Your task to perform on an android device: Open Youtube and go to "Your channel" Image 0: 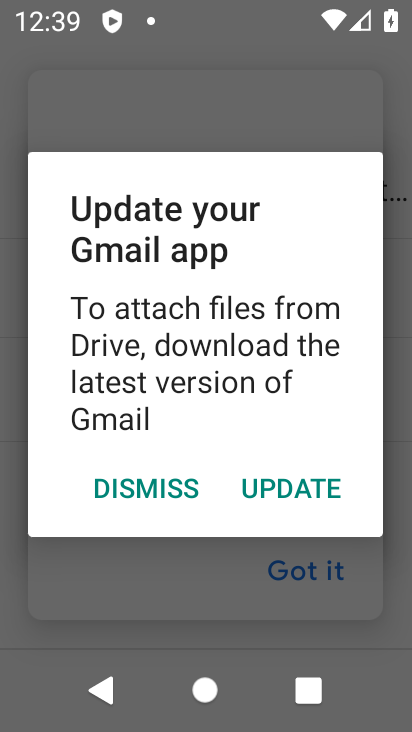
Step 0: press home button
Your task to perform on an android device: Open Youtube and go to "Your channel" Image 1: 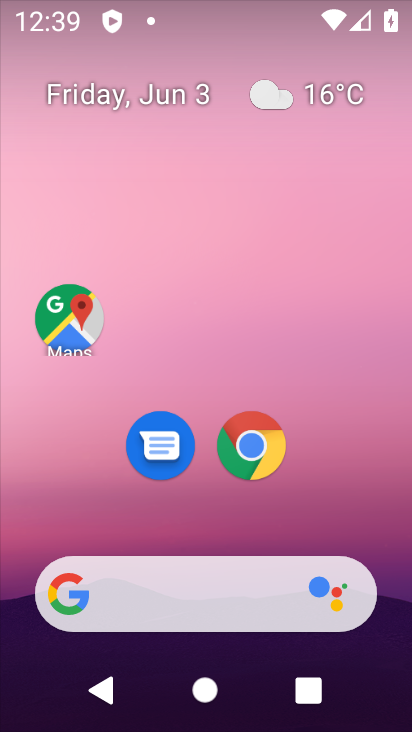
Step 1: drag from (194, 520) to (223, 46)
Your task to perform on an android device: Open Youtube and go to "Your channel" Image 2: 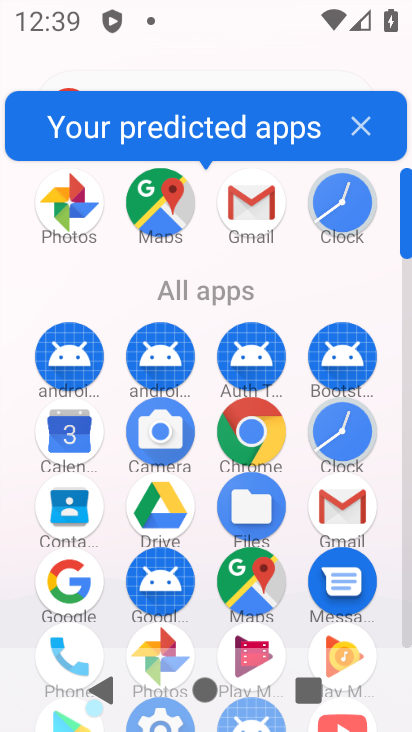
Step 2: drag from (200, 602) to (220, 171)
Your task to perform on an android device: Open Youtube and go to "Your channel" Image 3: 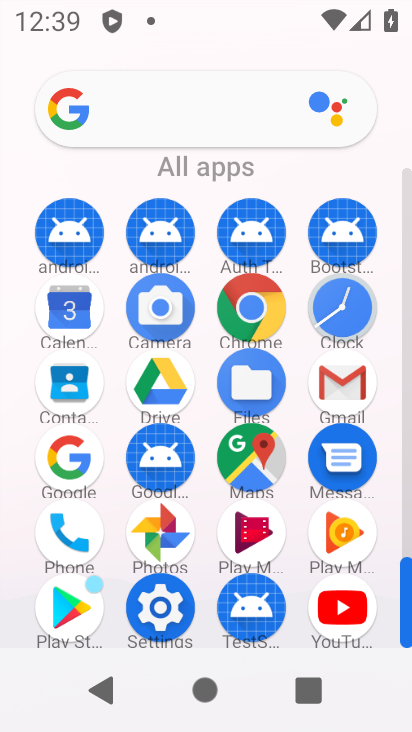
Step 3: click (329, 624)
Your task to perform on an android device: Open Youtube and go to "Your channel" Image 4: 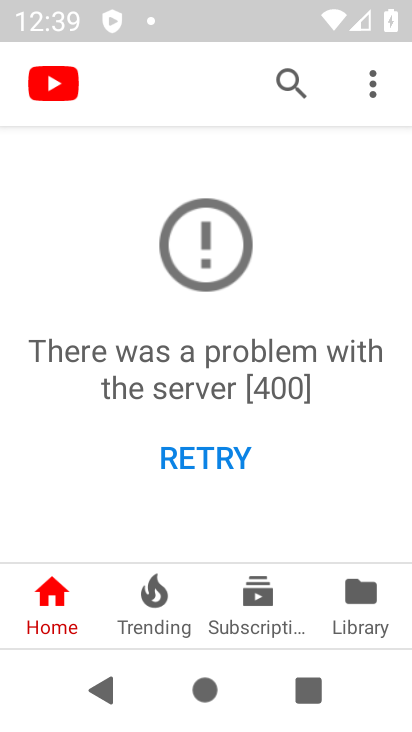
Step 4: click (276, 79)
Your task to perform on an android device: Open Youtube and go to "Your channel" Image 5: 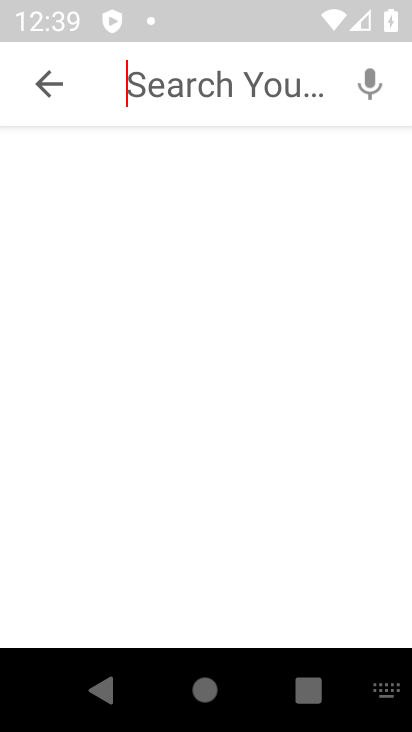
Step 5: type "your channel"
Your task to perform on an android device: Open Youtube and go to "Your channel" Image 6: 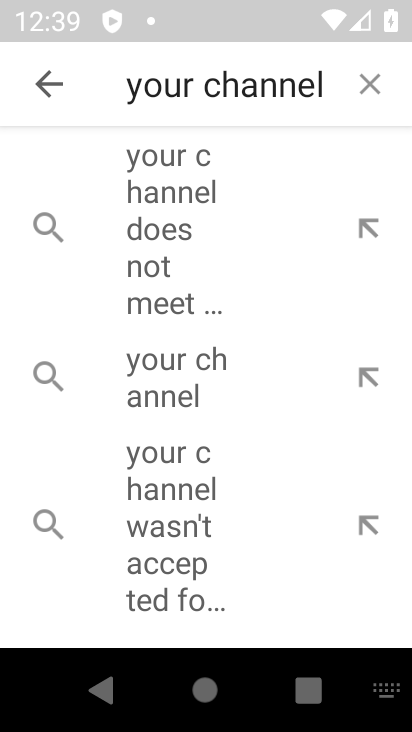
Step 6: click (169, 399)
Your task to perform on an android device: Open Youtube and go to "Your channel" Image 7: 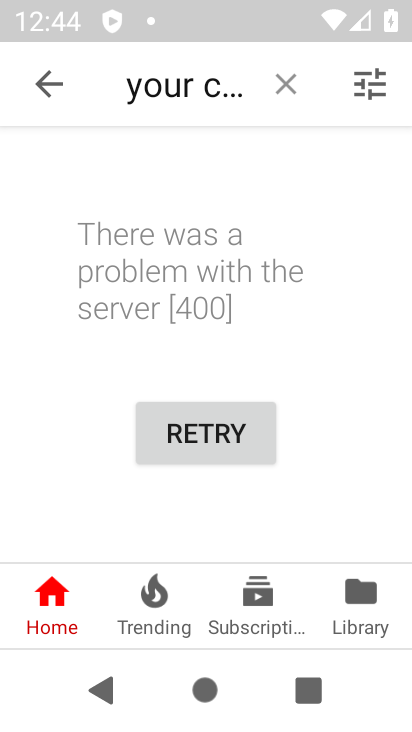
Step 7: task complete